Your task to perform on an android device: toggle location history Image 0: 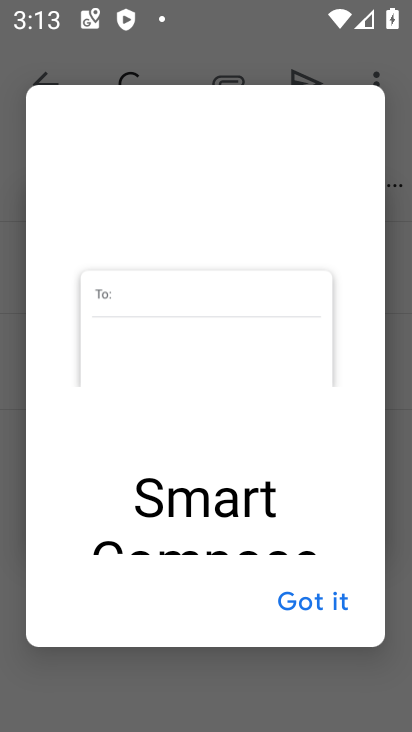
Step 0: press home button
Your task to perform on an android device: toggle location history Image 1: 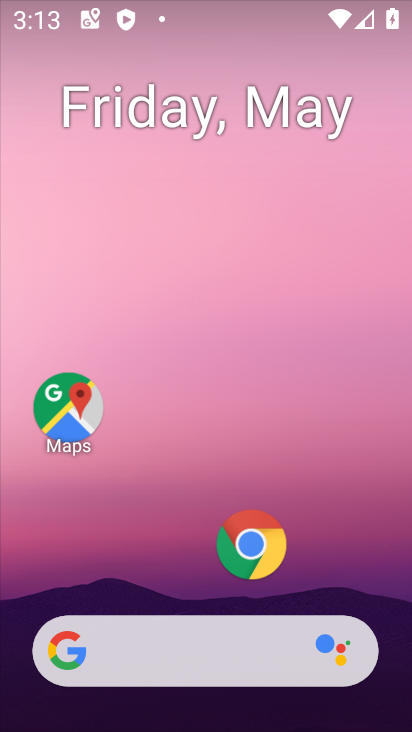
Step 1: drag from (203, 490) to (201, 209)
Your task to perform on an android device: toggle location history Image 2: 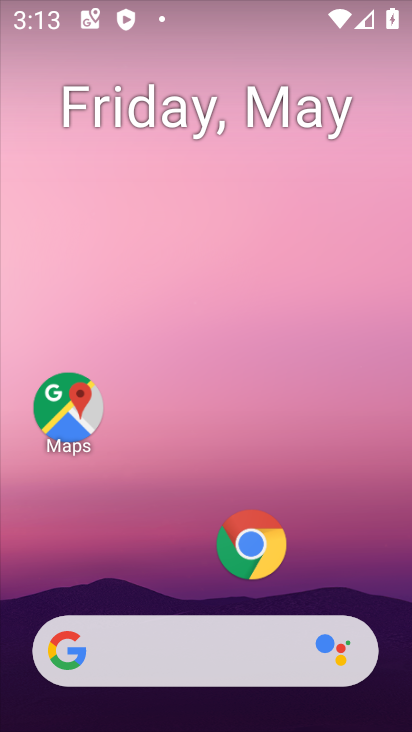
Step 2: drag from (185, 583) to (192, 136)
Your task to perform on an android device: toggle location history Image 3: 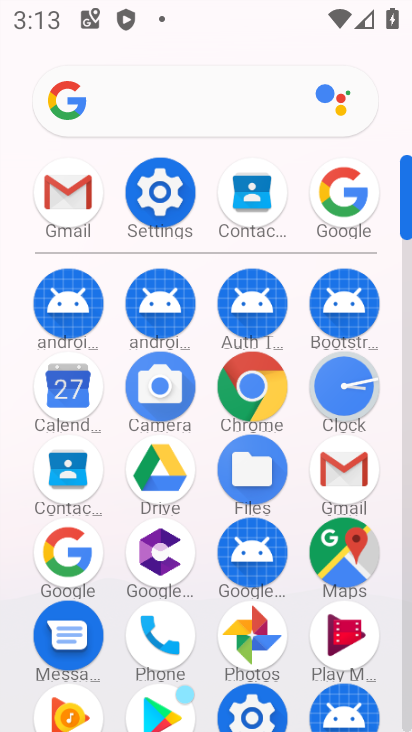
Step 3: click (170, 182)
Your task to perform on an android device: toggle location history Image 4: 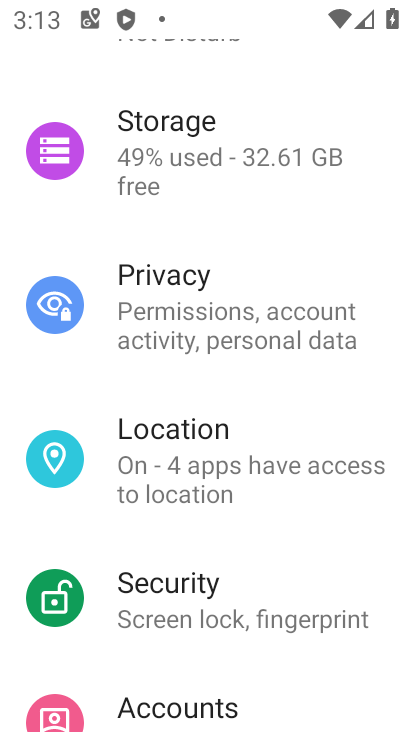
Step 4: click (194, 503)
Your task to perform on an android device: toggle location history Image 5: 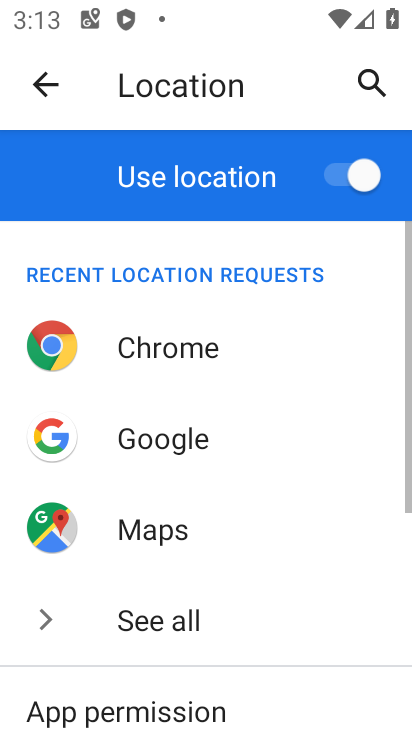
Step 5: drag from (191, 642) to (191, 220)
Your task to perform on an android device: toggle location history Image 6: 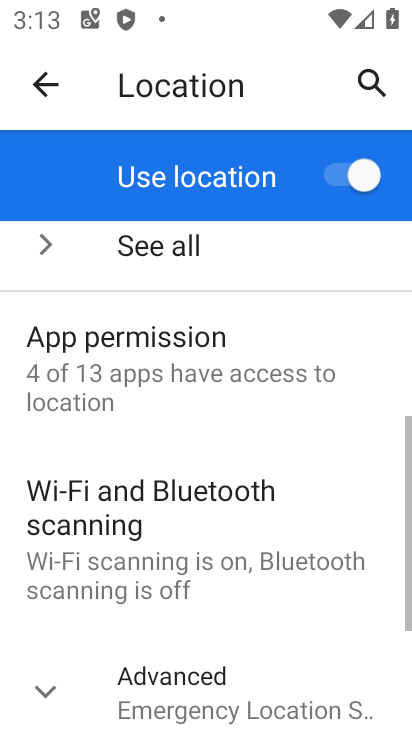
Step 6: drag from (190, 622) to (210, 357)
Your task to perform on an android device: toggle location history Image 7: 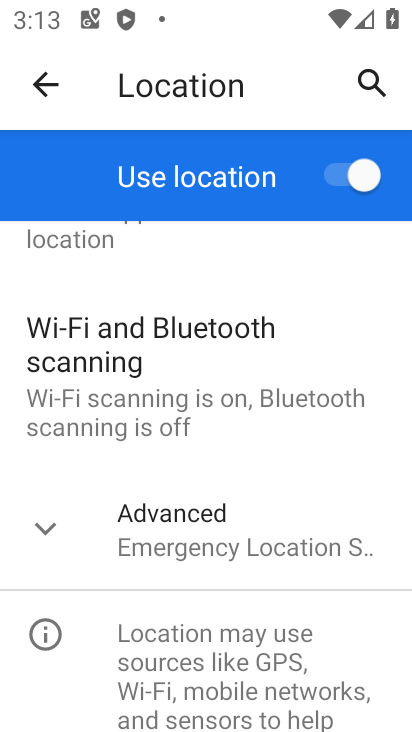
Step 7: click (211, 509)
Your task to perform on an android device: toggle location history Image 8: 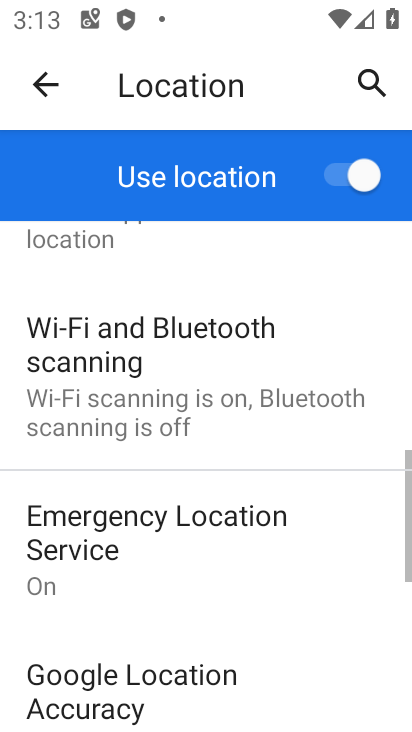
Step 8: drag from (213, 588) to (208, 274)
Your task to perform on an android device: toggle location history Image 9: 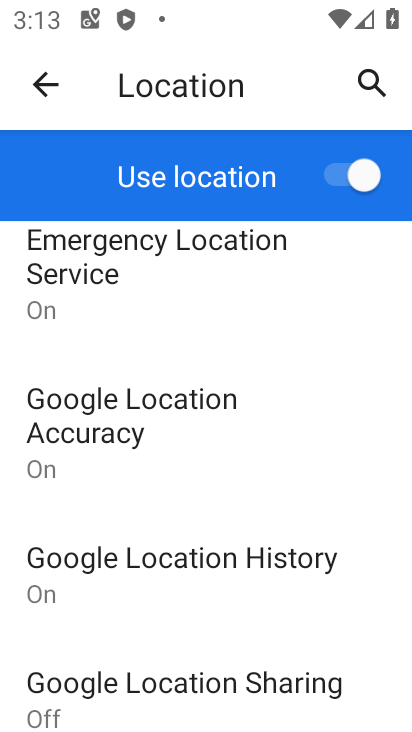
Step 9: click (208, 533)
Your task to perform on an android device: toggle location history Image 10: 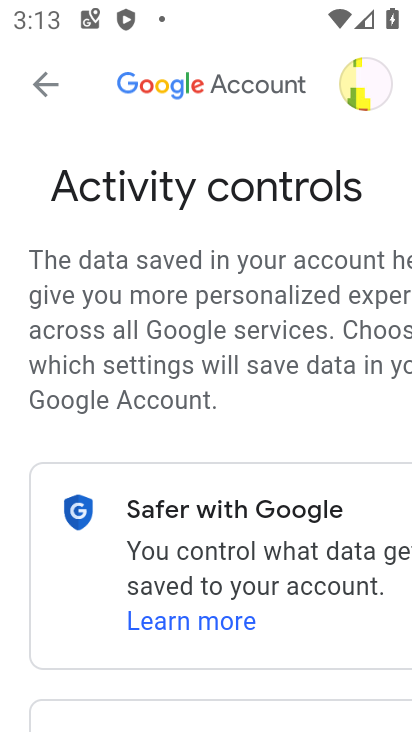
Step 10: drag from (239, 625) to (234, 221)
Your task to perform on an android device: toggle location history Image 11: 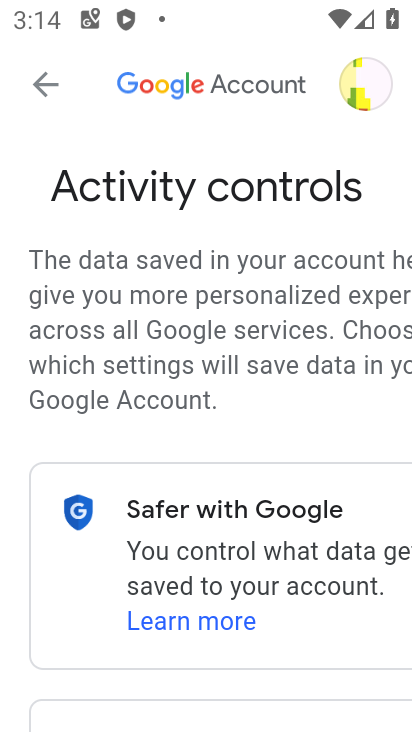
Step 11: drag from (234, 575) to (239, 247)
Your task to perform on an android device: toggle location history Image 12: 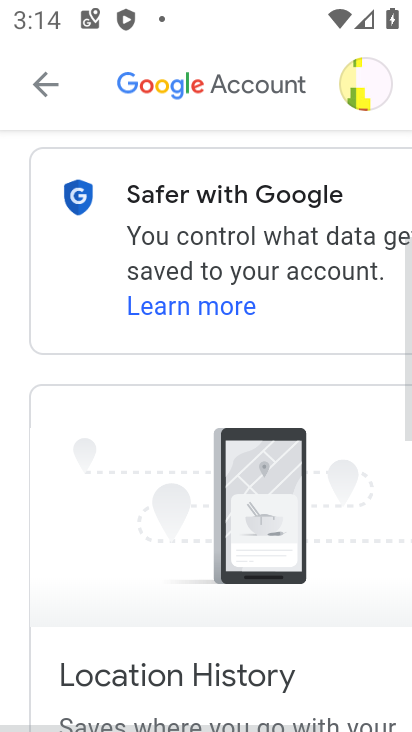
Step 12: drag from (221, 593) to (221, 288)
Your task to perform on an android device: toggle location history Image 13: 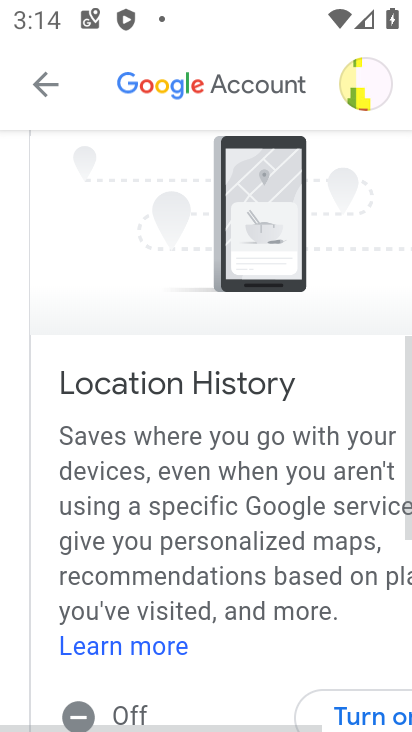
Step 13: drag from (207, 659) to (205, 409)
Your task to perform on an android device: toggle location history Image 14: 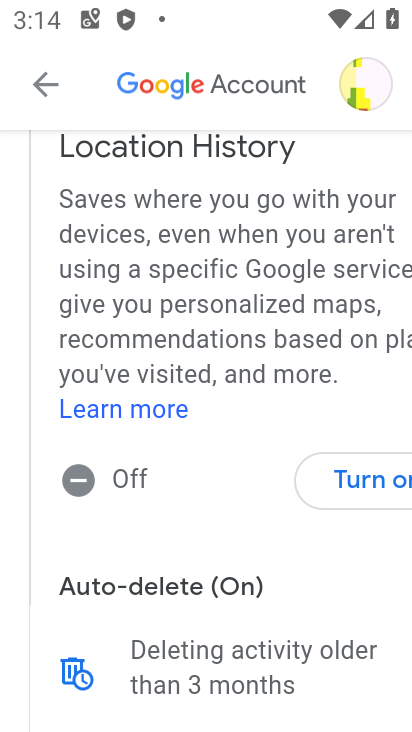
Step 14: click (334, 489)
Your task to perform on an android device: toggle location history Image 15: 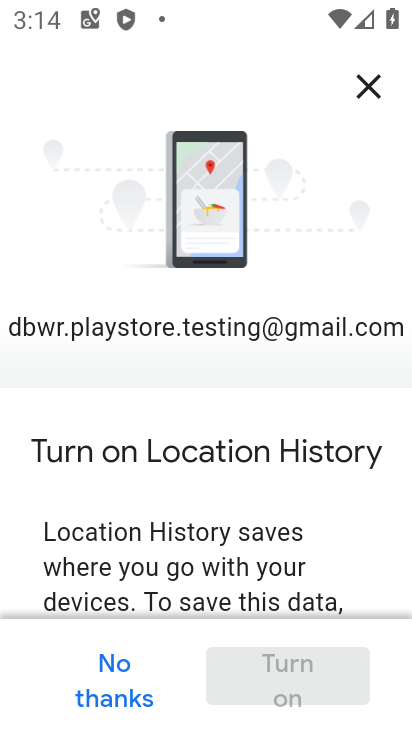
Step 15: drag from (230, 556) to (207, 268)
Your task to perform on an android device: toggle location history Image 16: 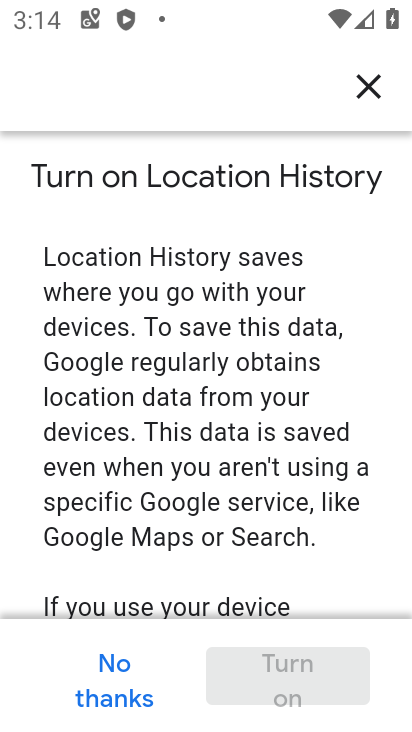
Step 16: drag from (198, 528) to (202, 299)
Your task to perform on an android device: toggle location history Image 17: 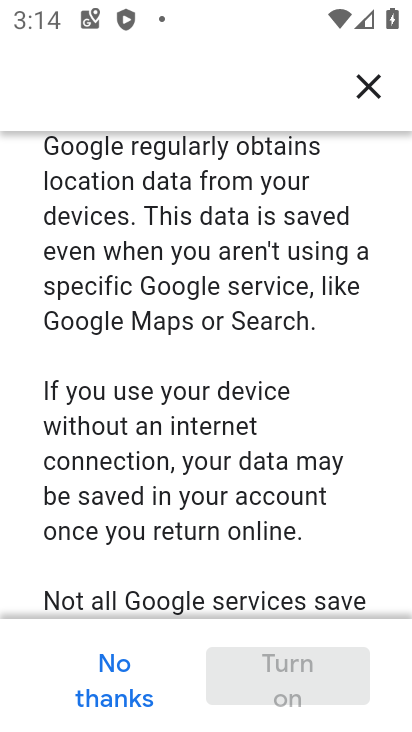
Step 17: drag from (240, 526) to (239, 298)
Your task to perform on an android device: toggle location history Image 18: 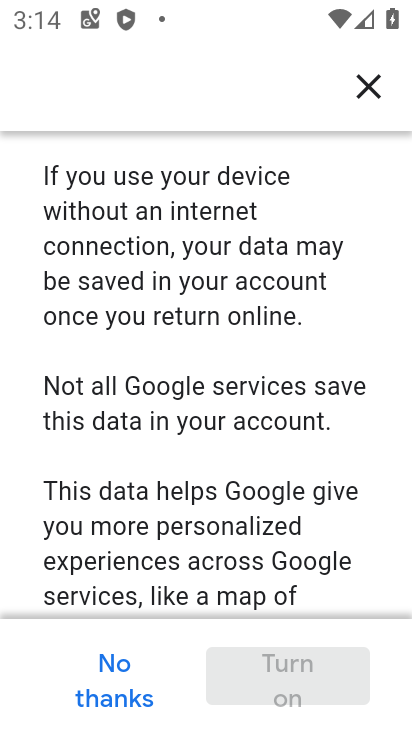
Step 18: drag from (242, 545) to (243, 336)
Your task to perform on an android device: toggle location history Image 19: 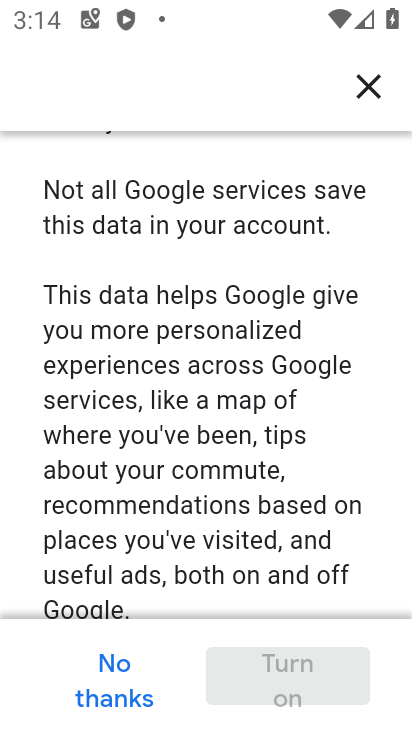
Step 19: drag from (250, 546) to (258, 321)
Your task to perform on an android device: toggle location history Image 20: 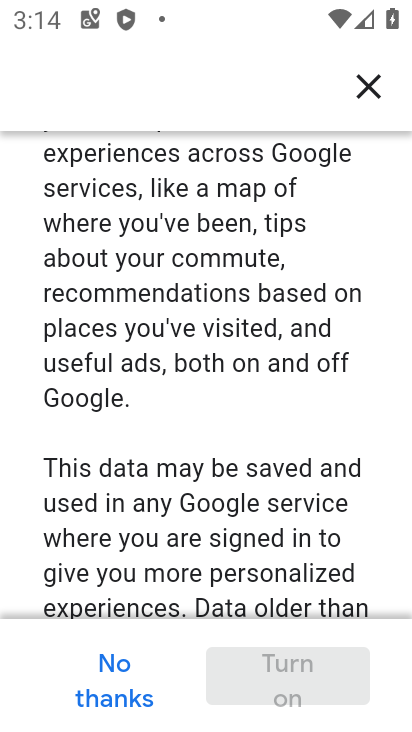
Step 20: drag from (258, 567) to (258, 324)
Your task to perform on an android device: toggle location history Image 21: 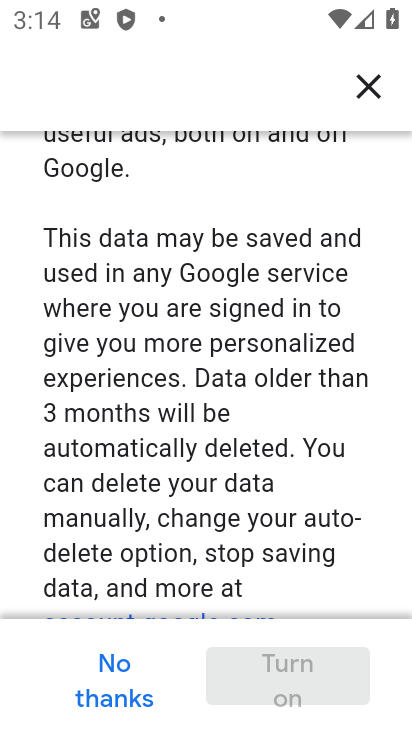
Step 21: drag from (252, 575) to (251, 327)
Your task to perform on an android device: toggle location history Image 22: 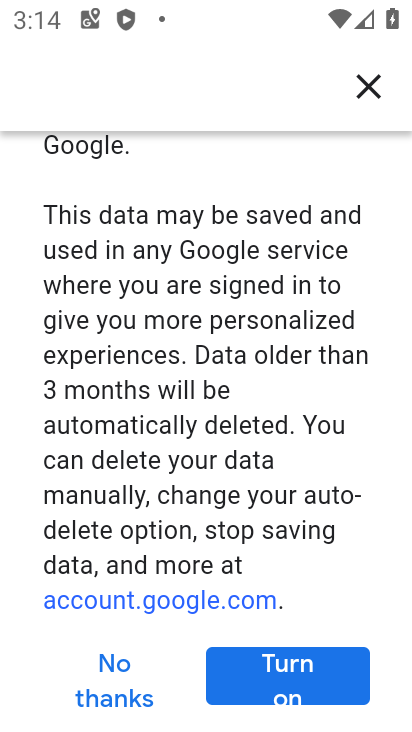
Step 22: click (273, 668)
Your task to perform on an android device: toggle location history Image 23: 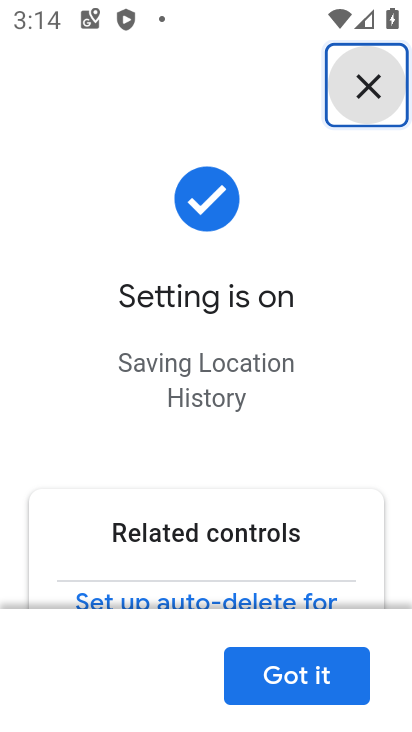
Step 23: task complete